Your task to perform on an android device: Play the last video I watched on Youtube Image 0: 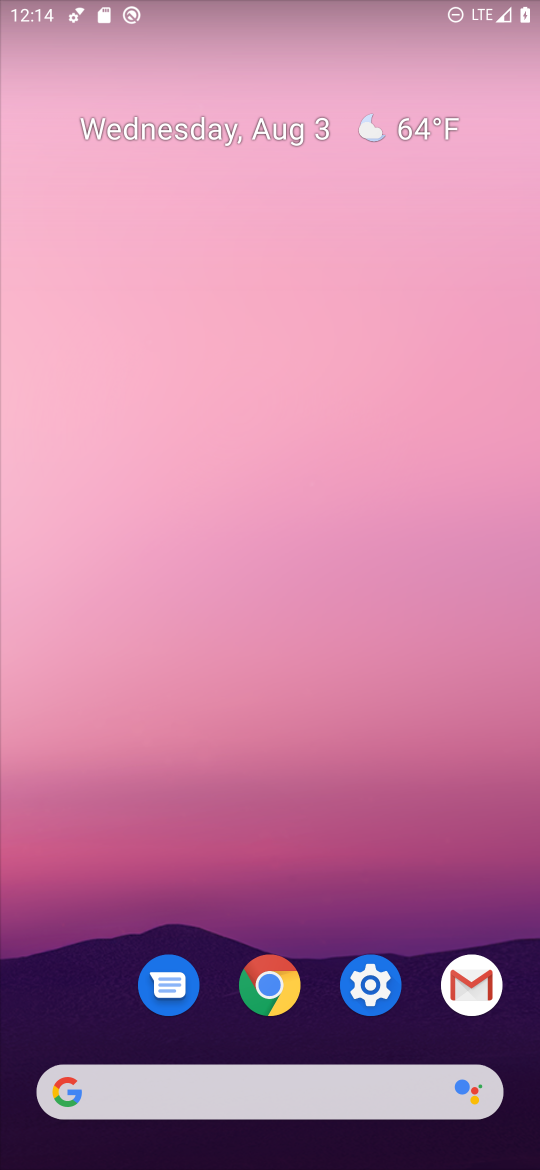
Step 0: press home button
Your task to perform on an android device: Play the last video I watched on Youtube Image 1: 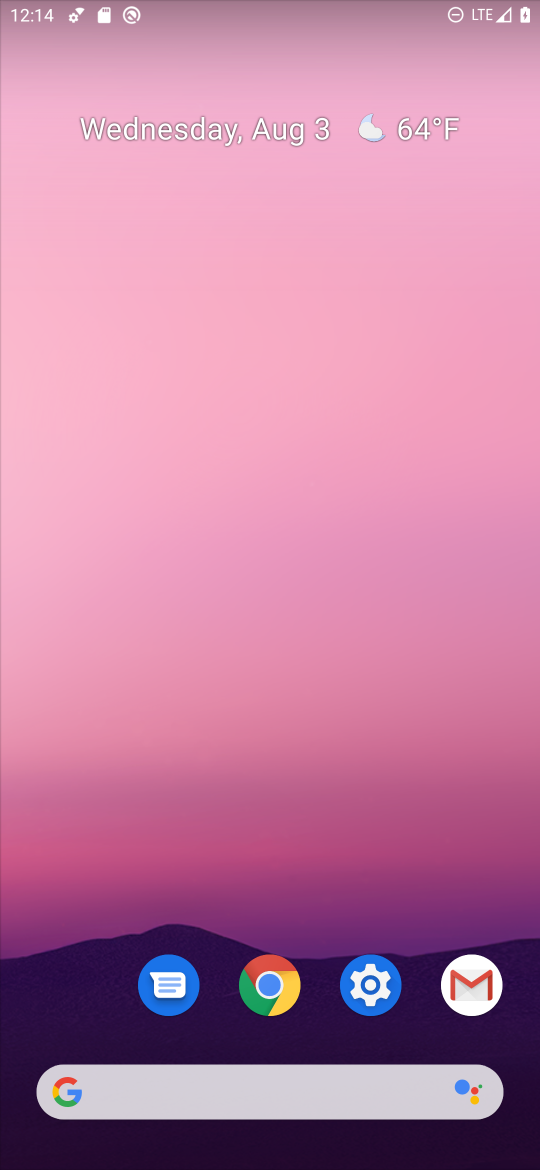
Step 1: drag from (317, 1135) to (367, 261)
Your task to perform on an android device: Play the last video I watched on Youtube Image 2: 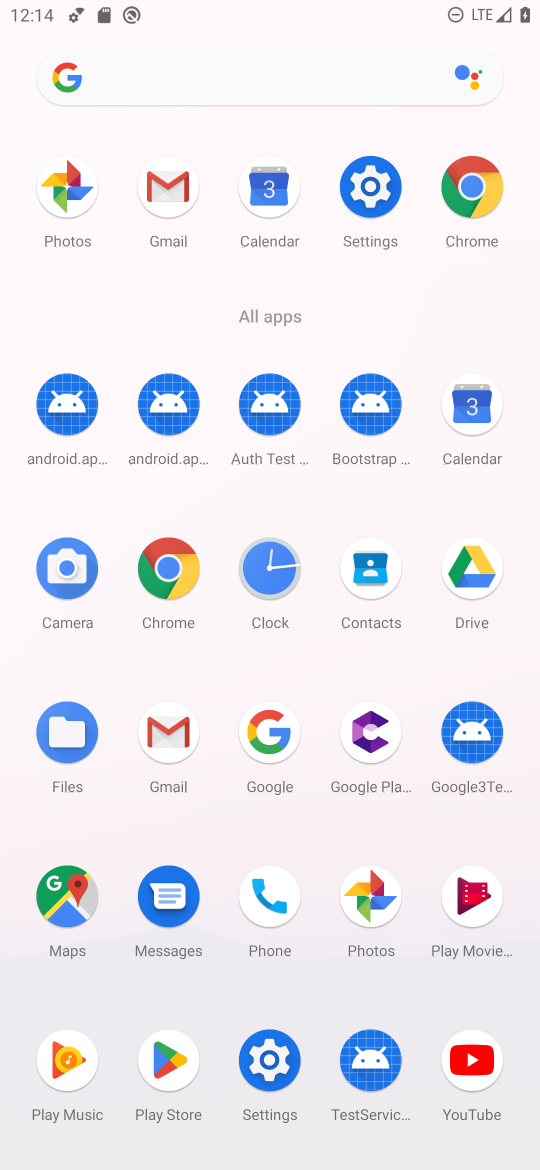
Step 2: click (470, 1054)
Your task to perform on an android device: Play the last video I watched on Youtube Image 3: 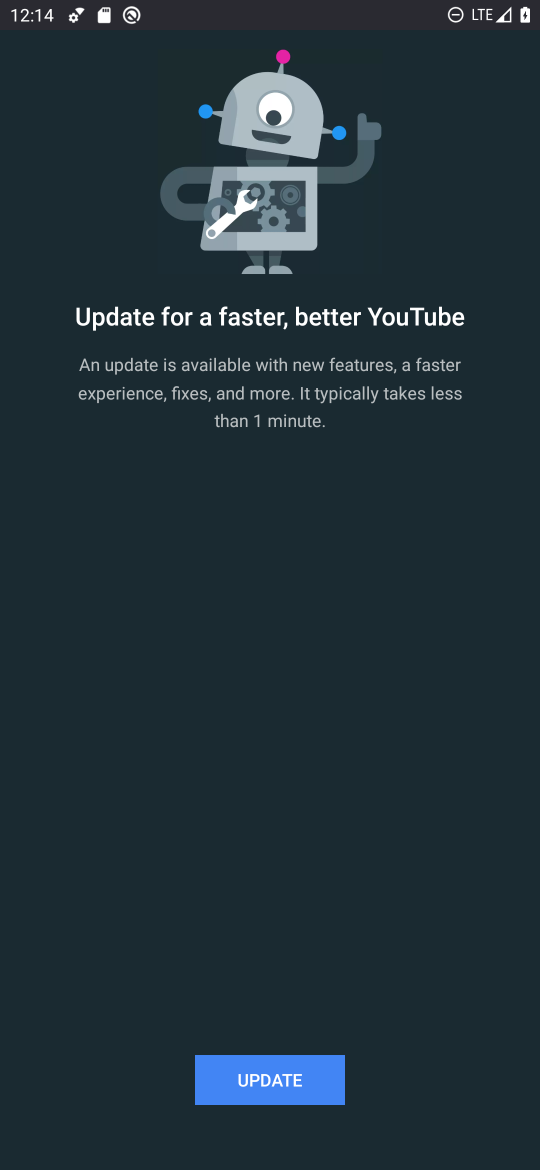
Step 3: click (268, 1075)
Your task to perform on an android device: Play the last video I watched on Youtube Image 4: 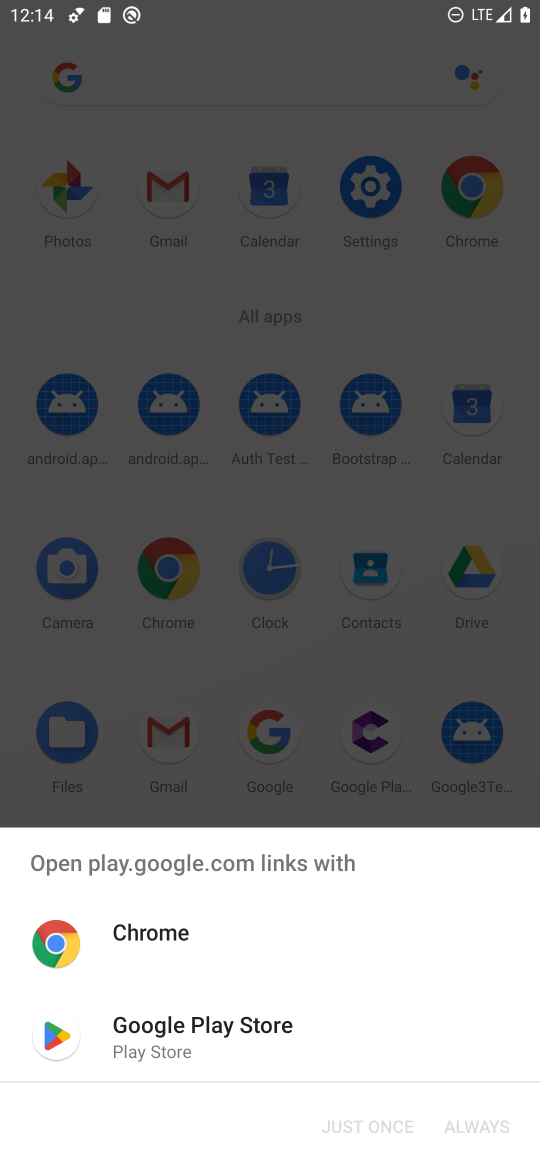
Step 4: click (240, 1029)
Your task to perform on an android device: Play the last video I watched on Youtube Image 5: 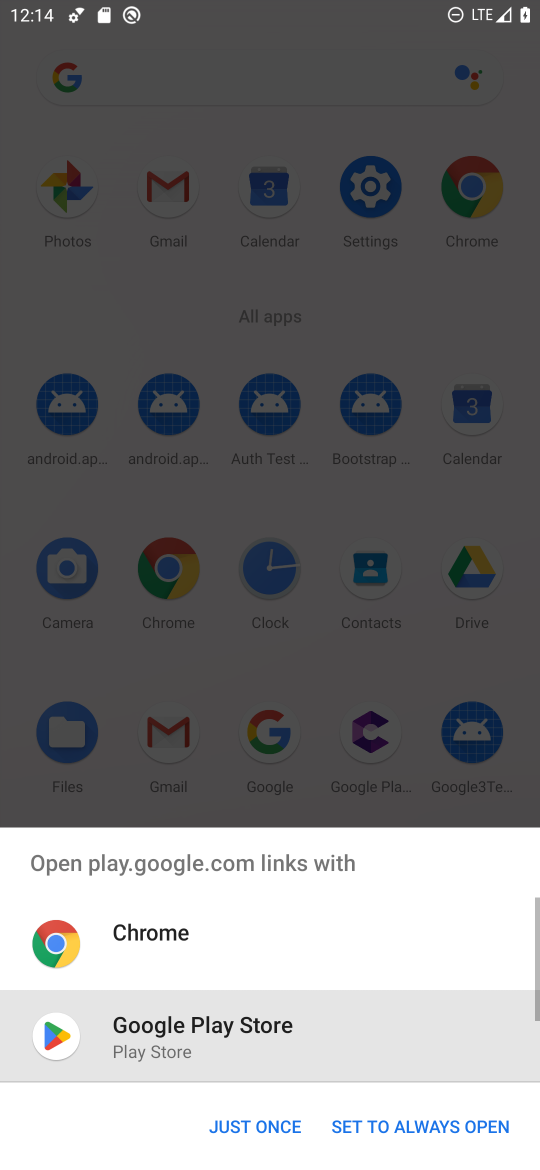
Step 5: click (270, 1118)
Your task to perform on an android device: Play the last video I watched on Youtube Image 6: 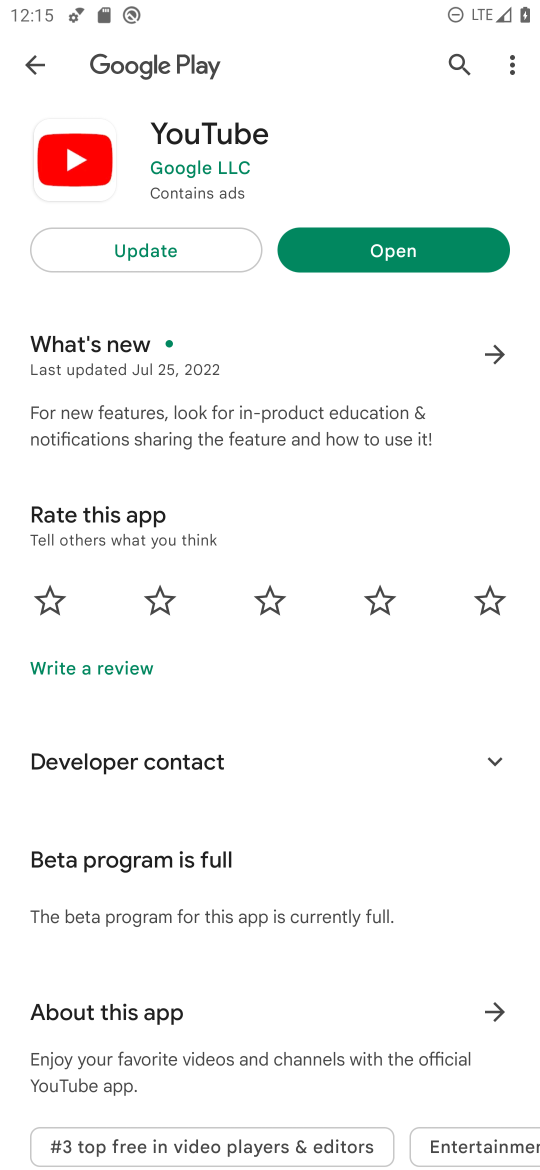
Step 6: click (192, 256)
Your task to perform on an android device: Play the last video I watched on Youtube Image 7: 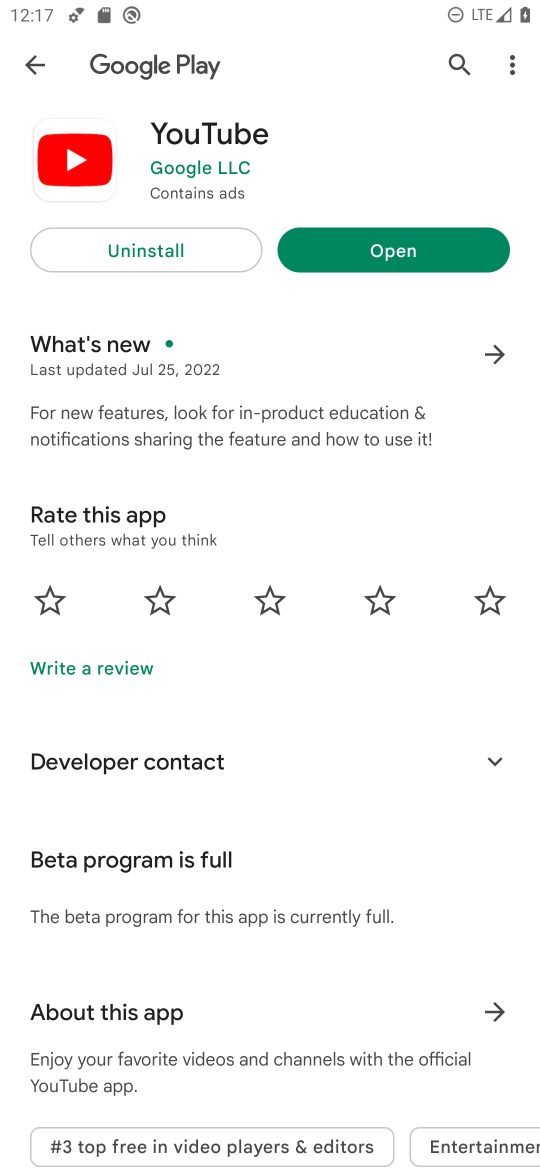
Step 7: click (476, 243)
Your task to perform on an android device: Play the last video I watched on Youtube Image 8: 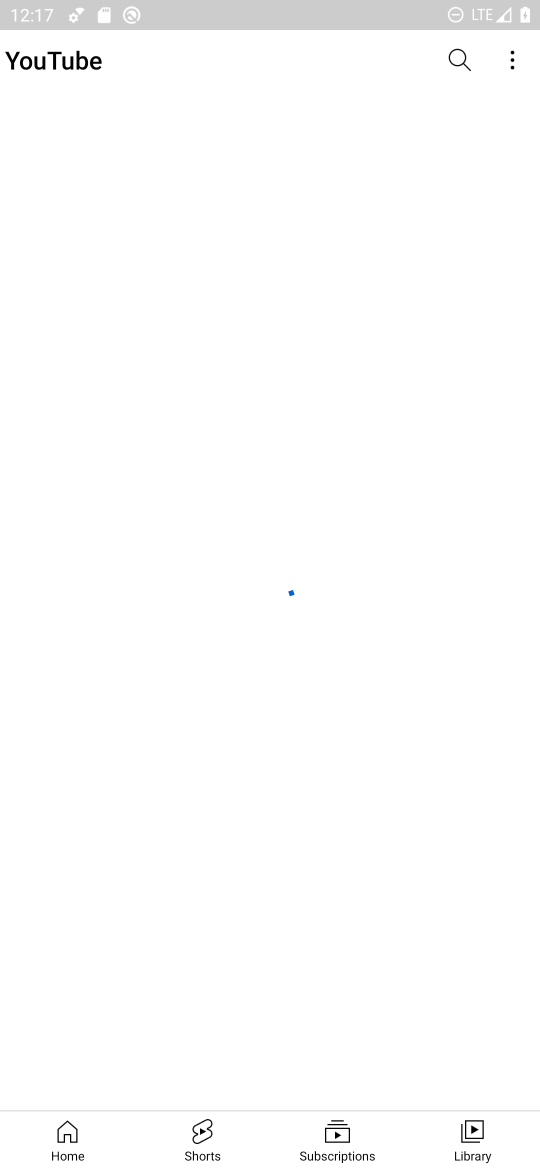
Step 8: click (470, 1127)
Your task to perform on an android device: Play the last video I watched on Youtube Image 9: 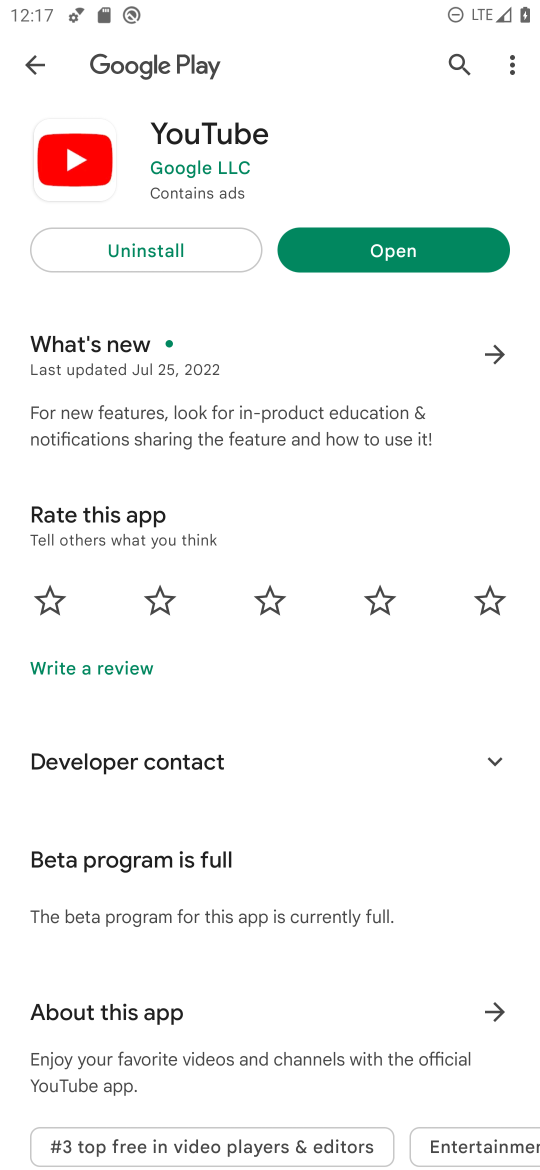
Step 9: click (366, 246)
Your task to perform on an android device: Play the last video I watched on Youtube Image 10: 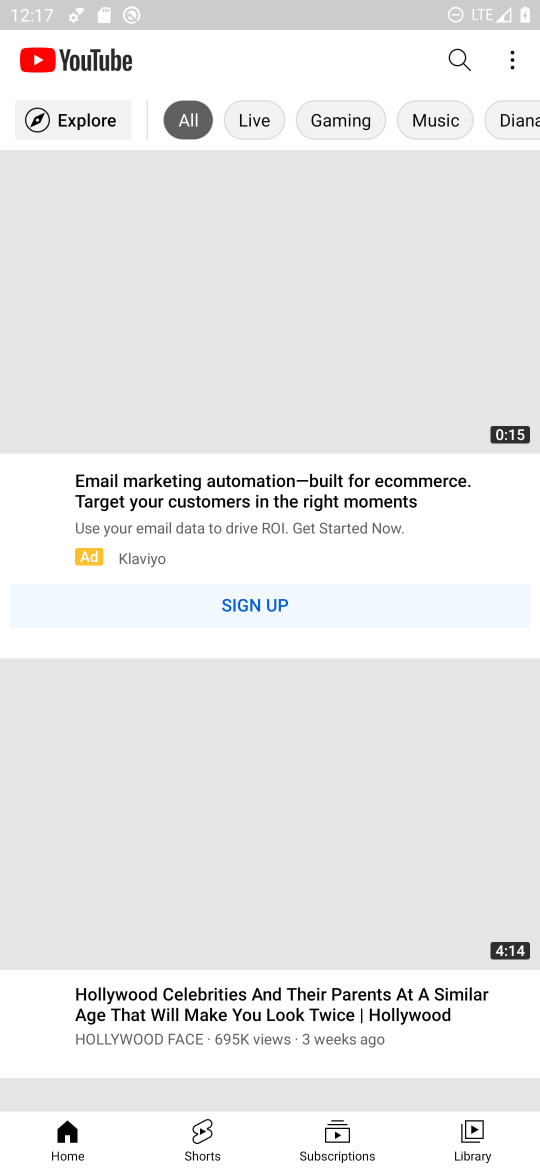
Step 10: click (484, 1126)
Your task to perform on an android device: Play the last video I watched on Youtube Image 11: 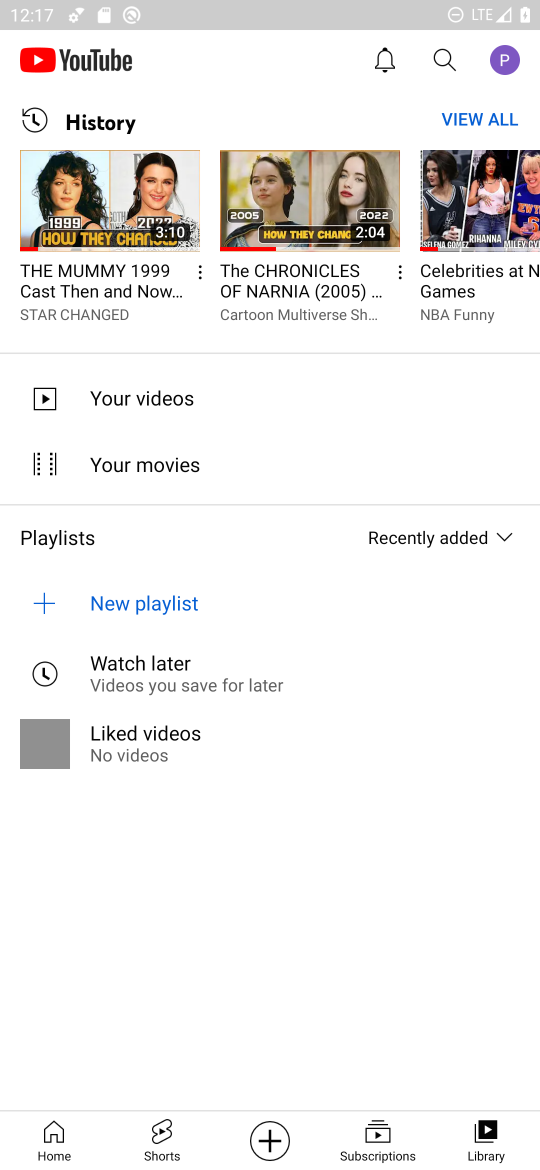
Step 11: click (98, 196)
Your task to perform on an android device: Play the last video I watched on Youtube Image 12: 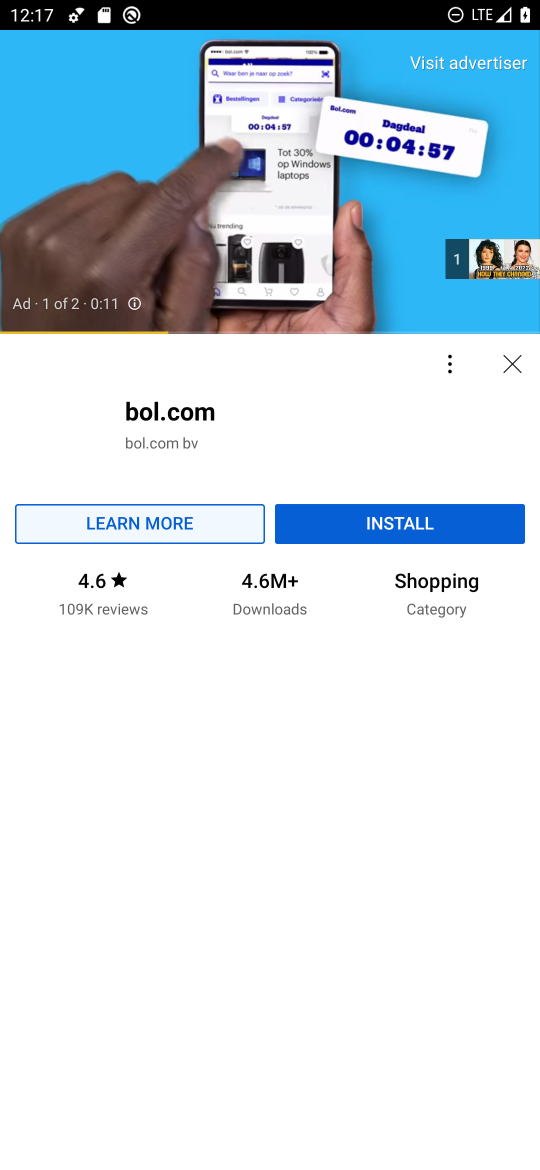
Step 12: task complete